Your task to perform on an android device: install app "Facebook Lite" Image 0: 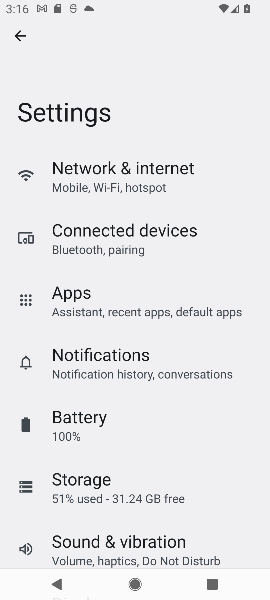
Step 0: press home button
Your task to perform on an android device: install app "Facebook Lite" Image 1: 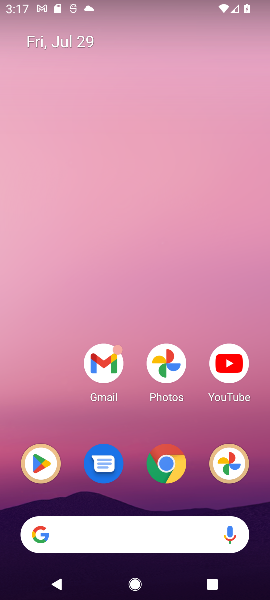
Step 1: drag from (111, 542) to (126, 114)
Your task to perform on an android device: install app "Facebook Lite" Image 2: 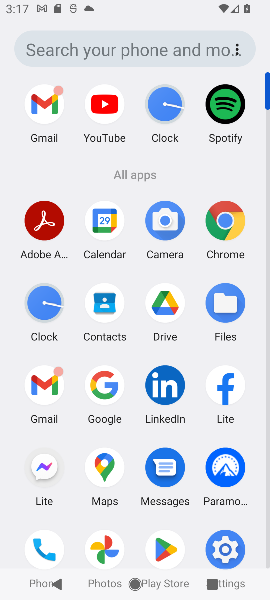
Step 2: click (166, 550)
Your task to perform on an android device: install app "Facebook Lite" Image 3: 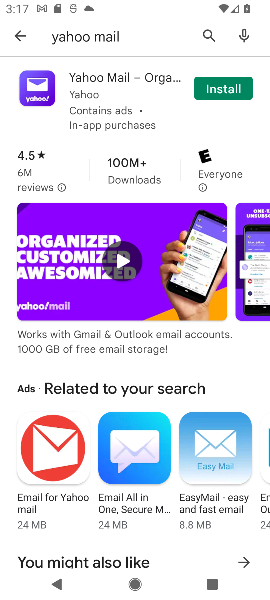
Step 3: click (205, 36)
Your task to perform on an android device: install app "Facebook Lite" Image 4: 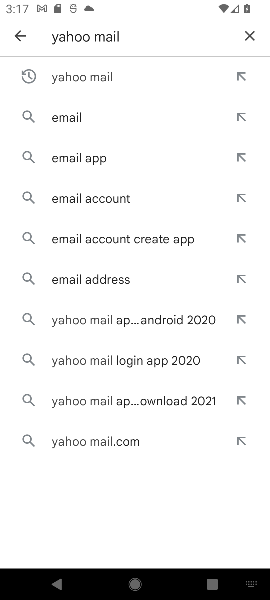
Step 4: click (249, 33)
Your task to perform on an android device: install app "Facebook Lite" Image 5: 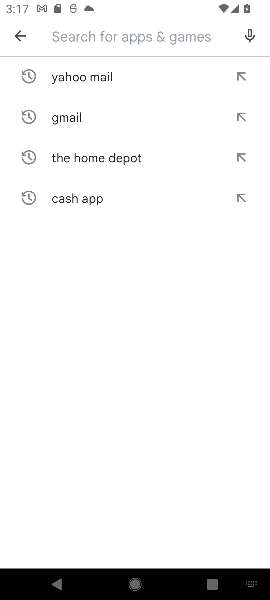
Step 5: type "Facebook Lite"
Your task to perform on an android device: install app "Facebook Lite" Image 6: 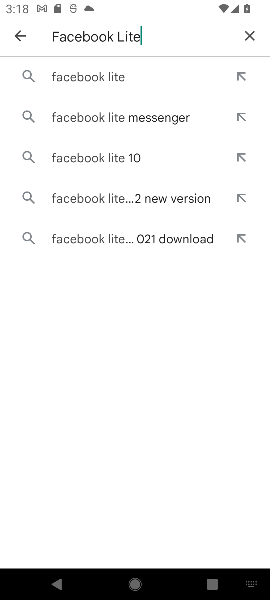
Step 6: click (106, 74)
Your task to perform on an android device: install app "Facebook Lite" Image 7: 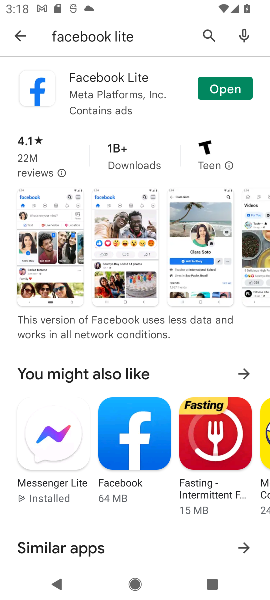
Step 7: task complete